Your task to perform on an android device: Clear the shopping cart on ebay. Add razer blackwidow to the cart on ebay, then select checkout. Image 0: 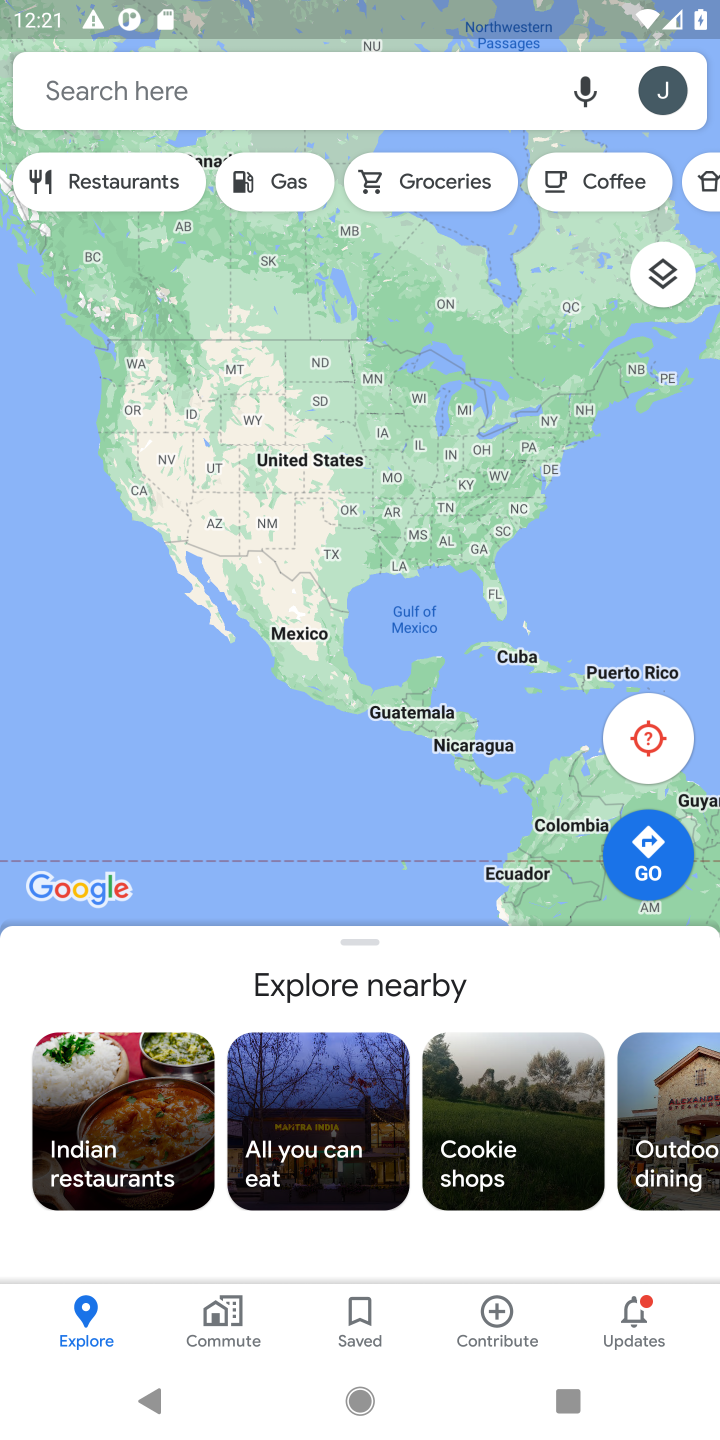
Step 0: press home button
Your task to perform on an android device: Clear the shopping cart on ebay. Add razer blackwidow to the cart on ebay, then select checkout. Image 1: 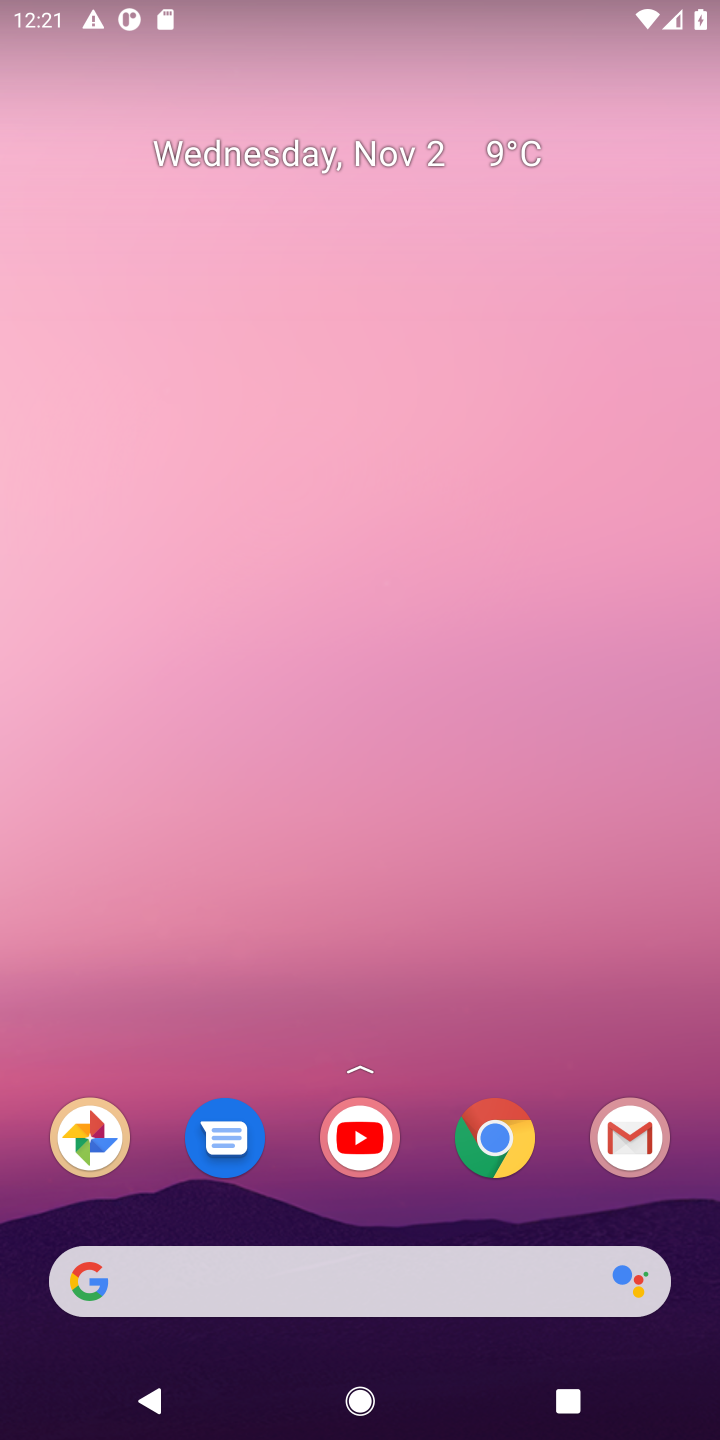
Step 1: click (377, 1281)
Your task to perform on an android device: Clear the shopping cart on ebay. Add razer blackwidow to the cart on ebay, then select checkout. Image 2: 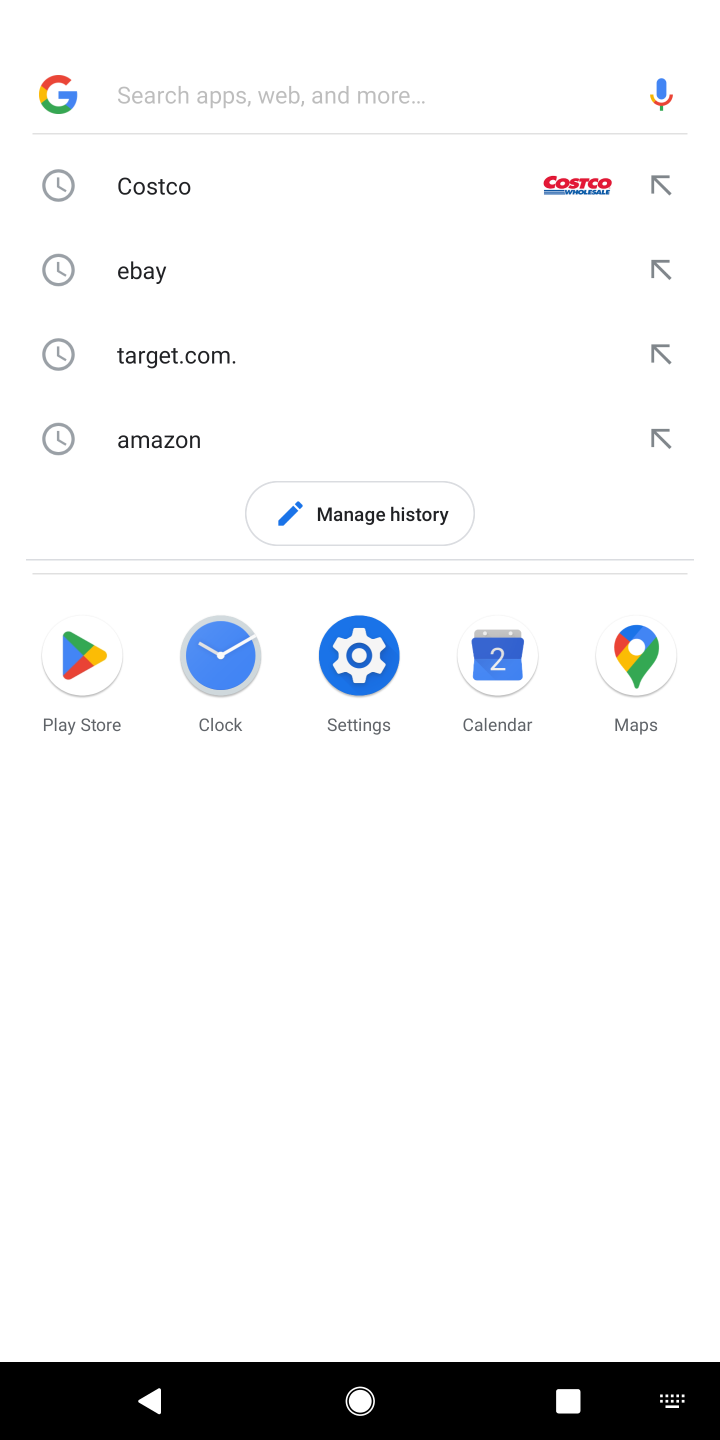
Step 2: click (169, 285)
Your task to perform on an android device: Clear the shopping cart on ebay. Add razer blackwidow to the cart on ebay, then select checkout. Image 3: 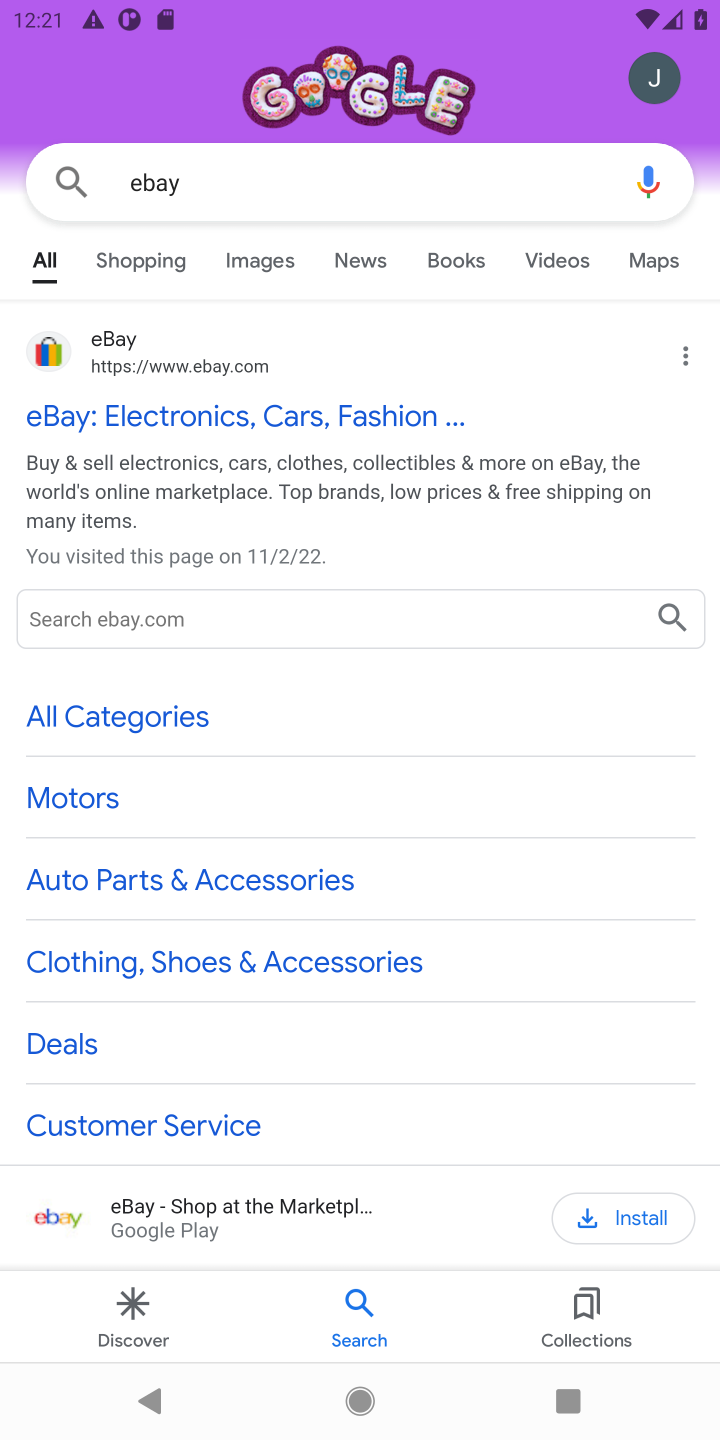
Step 3: click (76, 407)
Your task to perform on an android device: Clear the shopping cart on ebay. Add razer blackwidow to the cart on ebay, then select checkout. Image 4: 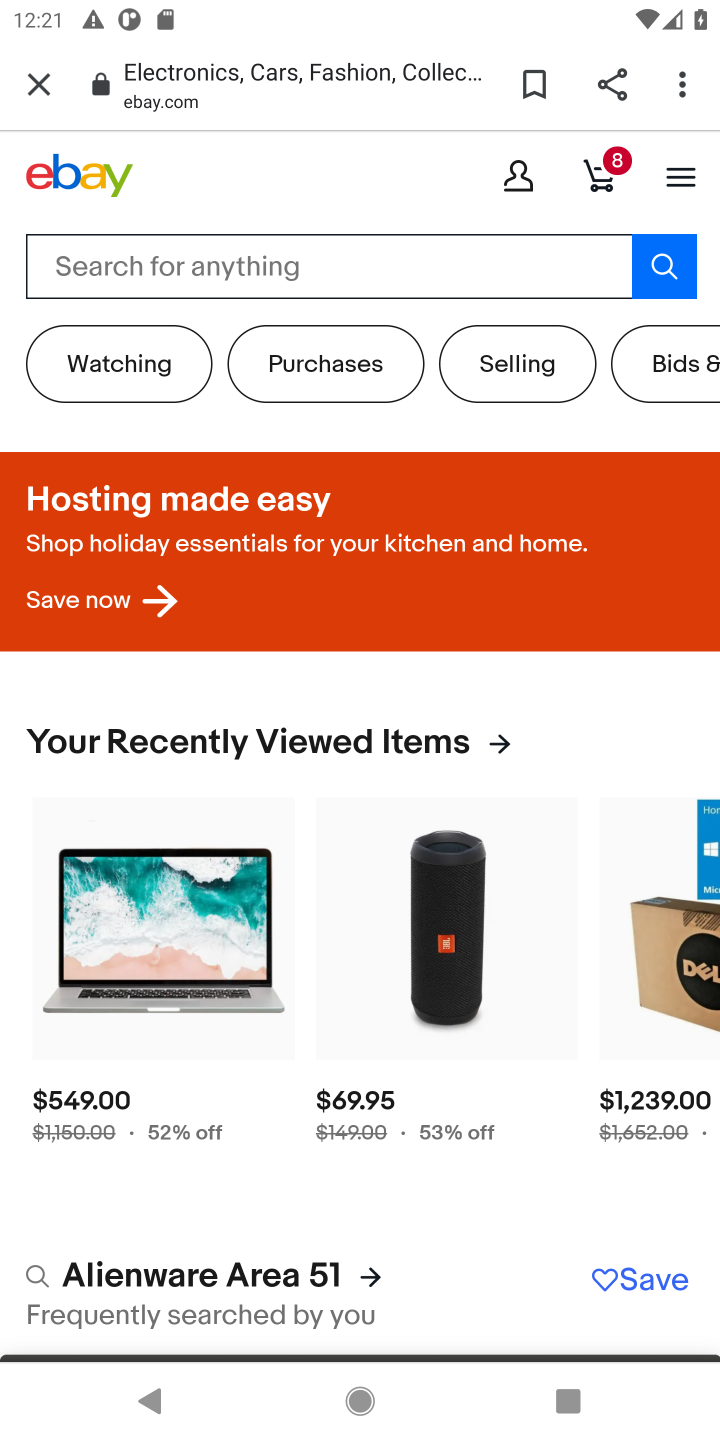
Step 4: click (191, 276)
Your task to perform on an android device: Clear the shopping cart on ebay. Add razer blackwidow to the cart on ebay, then select checkout. Image 5: 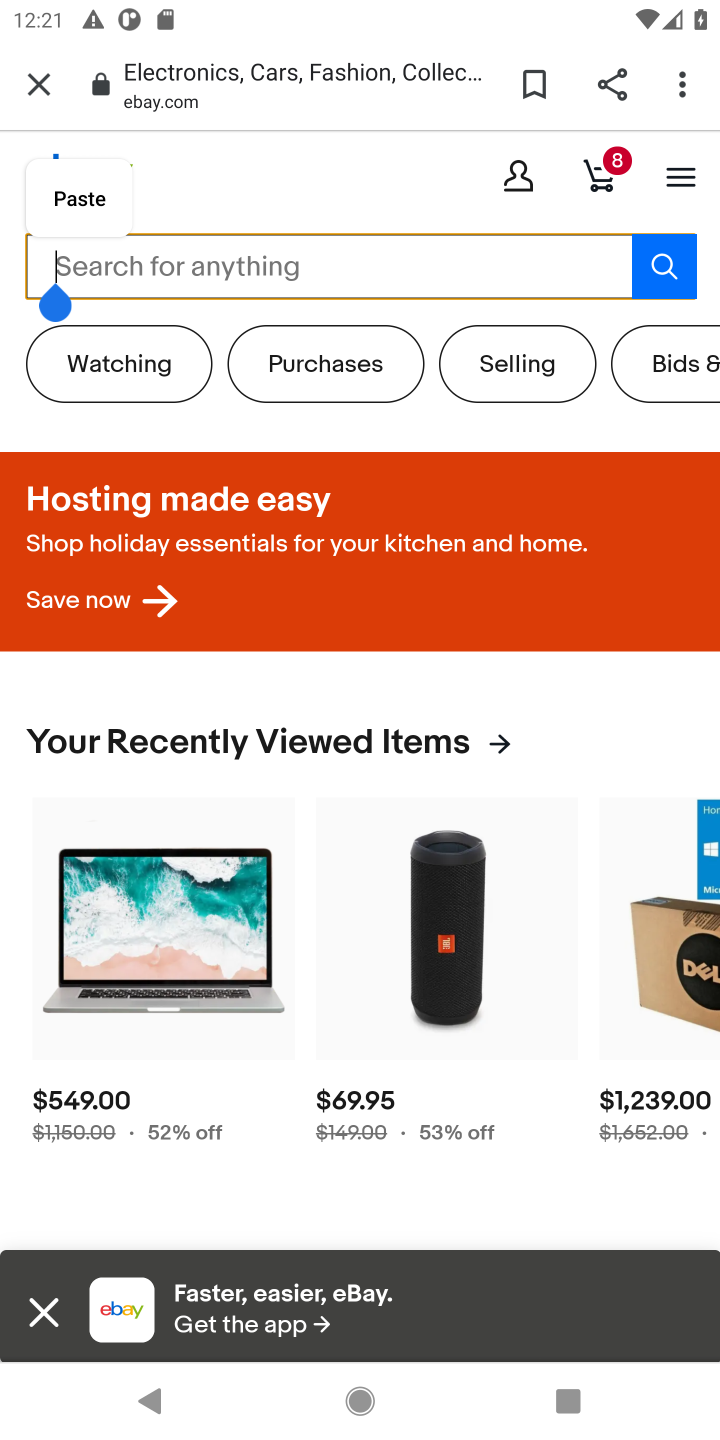
Step 5: type "razer blackwidow"
Your task to perform on an android device: Clear the shopping cart on ebay. Add razer blackwidow to the cart on ebay, then select checkout. Image 6: 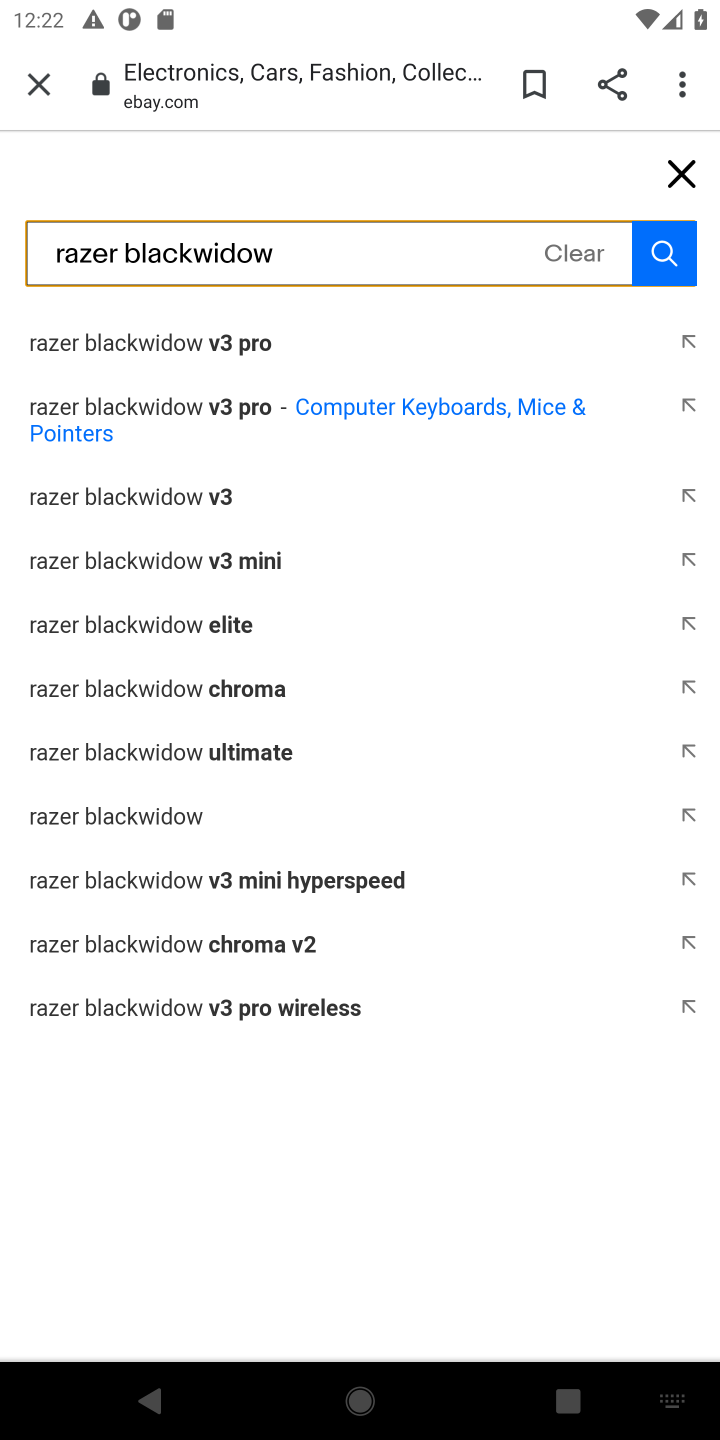
Step 6: click (651, 262)
Your task to perform on an android device: Clear the shopping cart on ebay. Add razer blackwidow to the cart on ebay, then select checkout. Image 7: 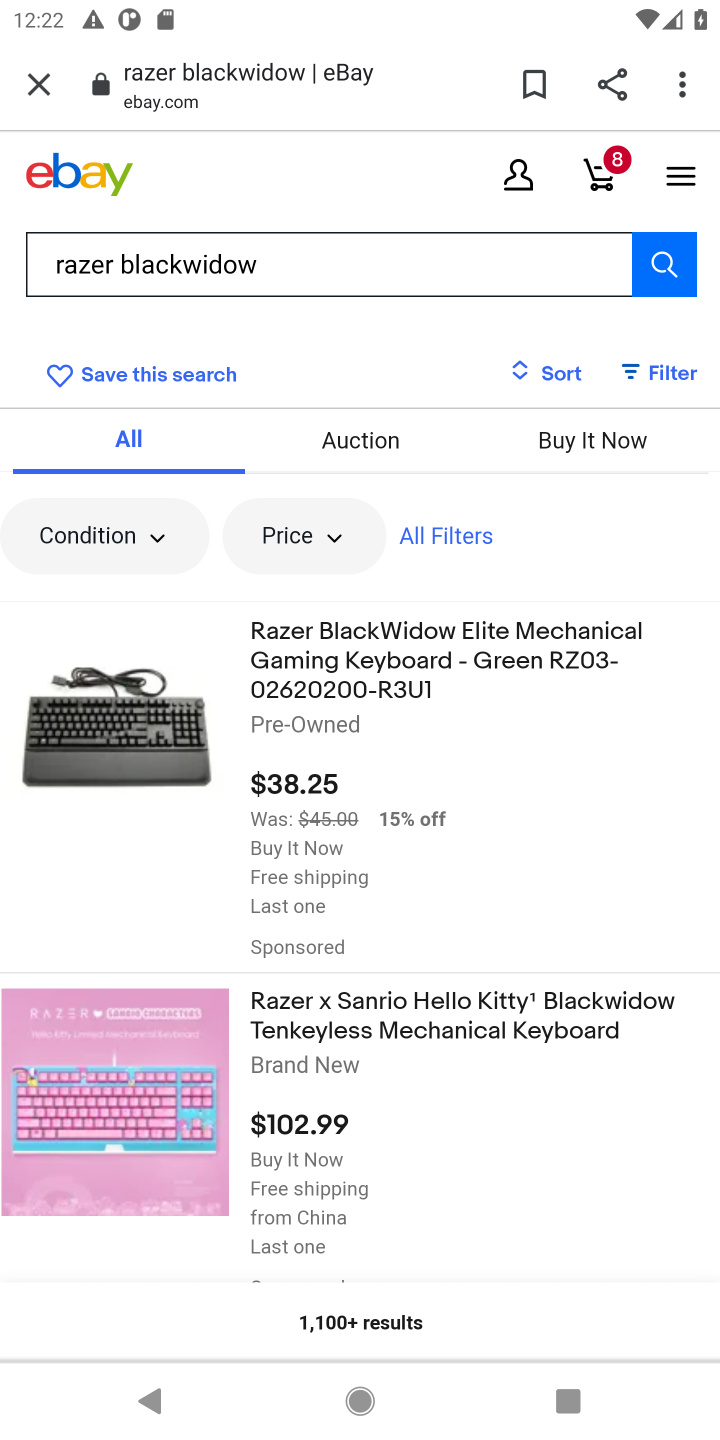
Step 7: click (383, 673)
Your task to perform on an android device: Clear the shopping cart on ebay. Add razer blackwidow to the cart on ebay, then select checkout. Image 8: 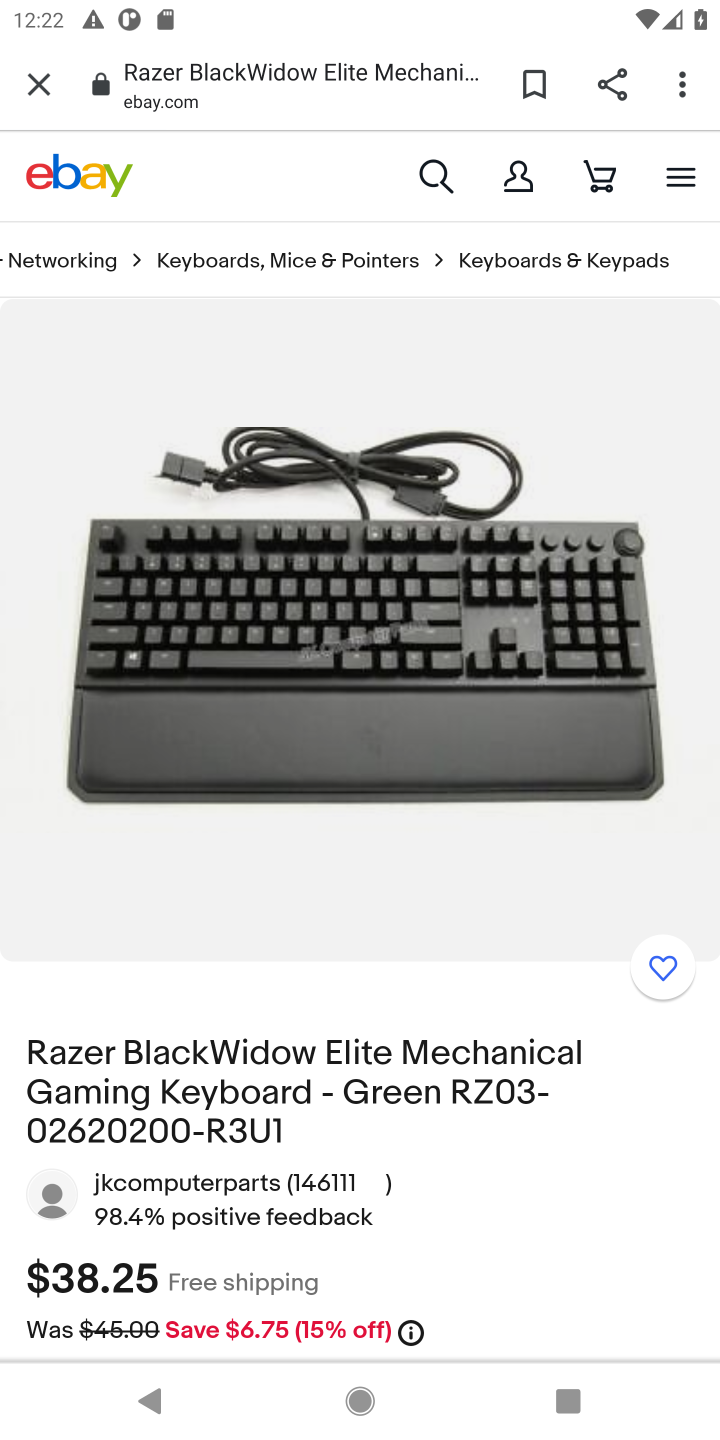
Step 8: drag from (527, 1222) to (501, 536)
Your task to perform on an android device: Clear the shopping cart on ebay. Add razer blackwidow to the cart on ebay, then select checkout. Image 9: 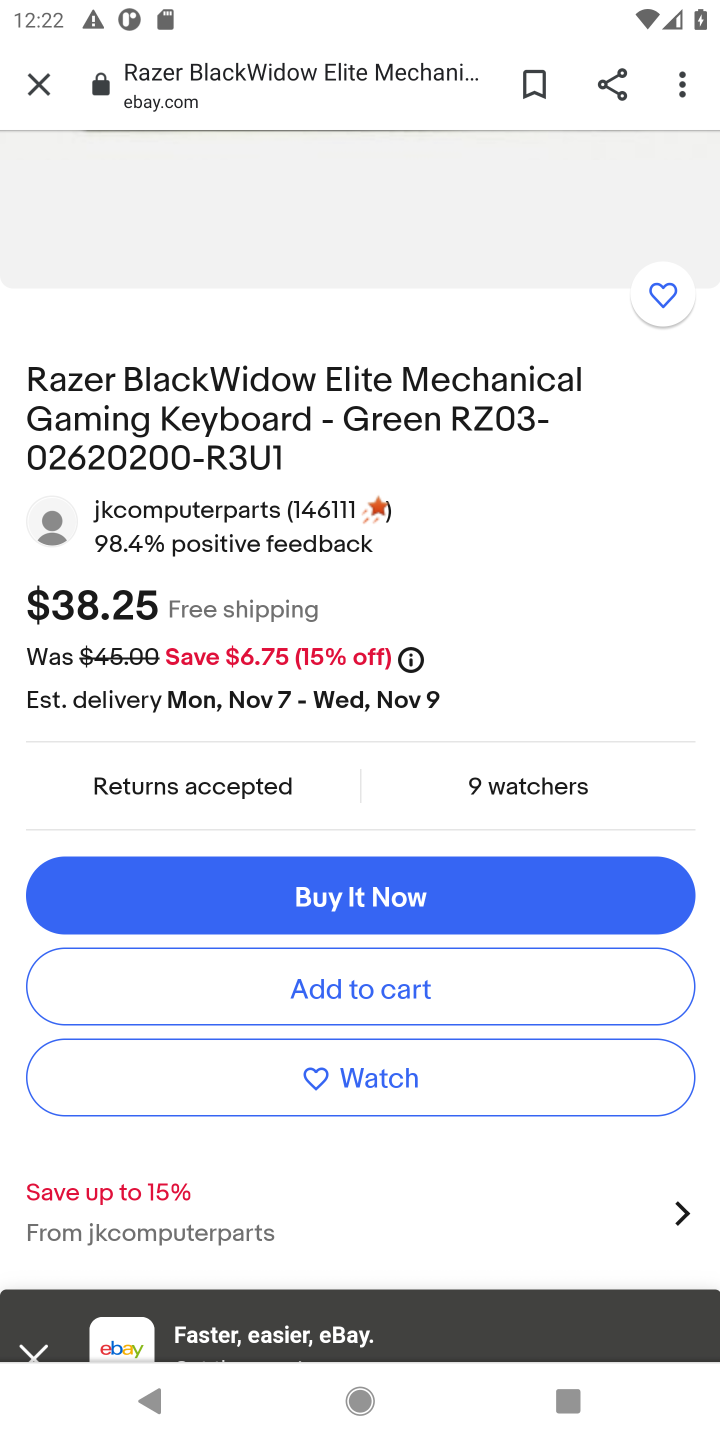
Step 9: drag from (354, 895) to (381, 816)
Your task to perform on an android device: Clear the shopping cart on ebay. Add razer blackwidow to the cart on ebay, then select checkout. Image 10: 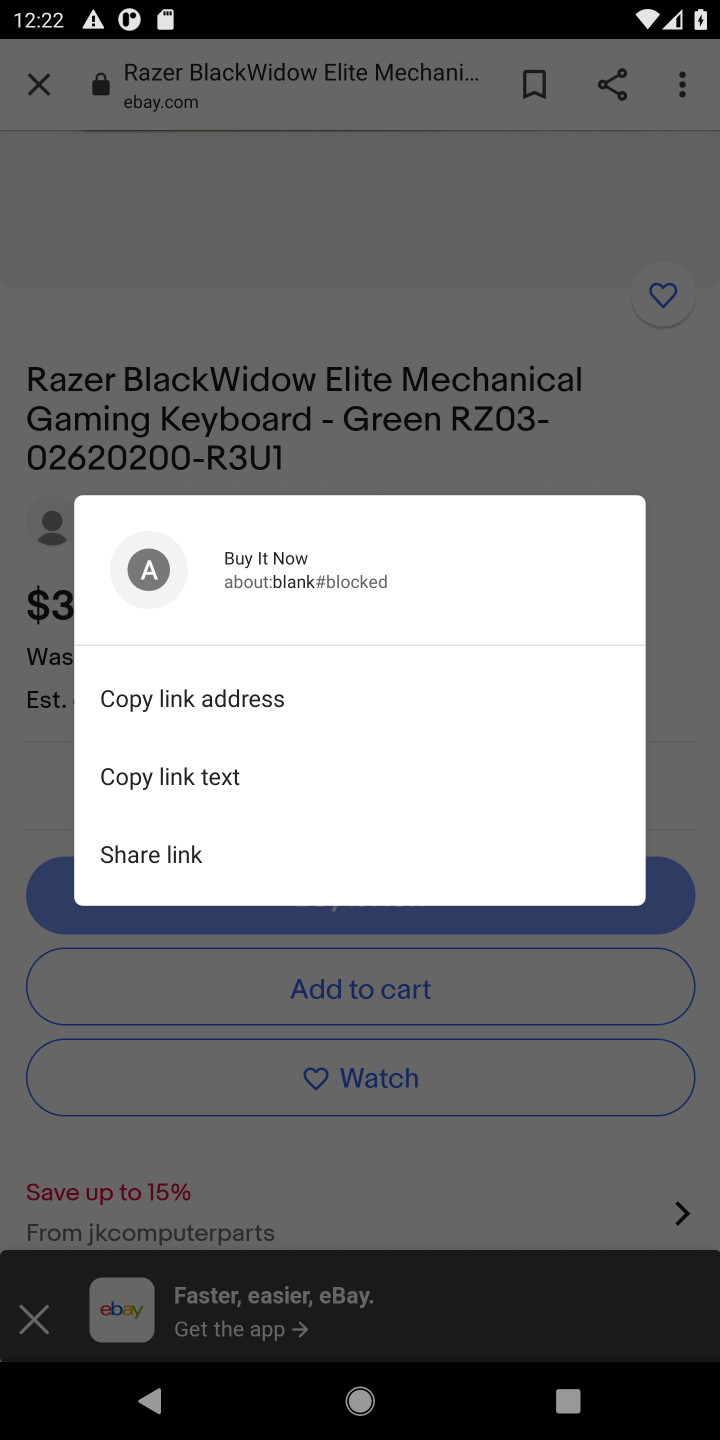
Step 10: click (661, 581)
Your task to perform on an android device: Clear the shopping cart on ebay. Add razer blackwidow to the cart on ebay, then select checkout. Image 11: 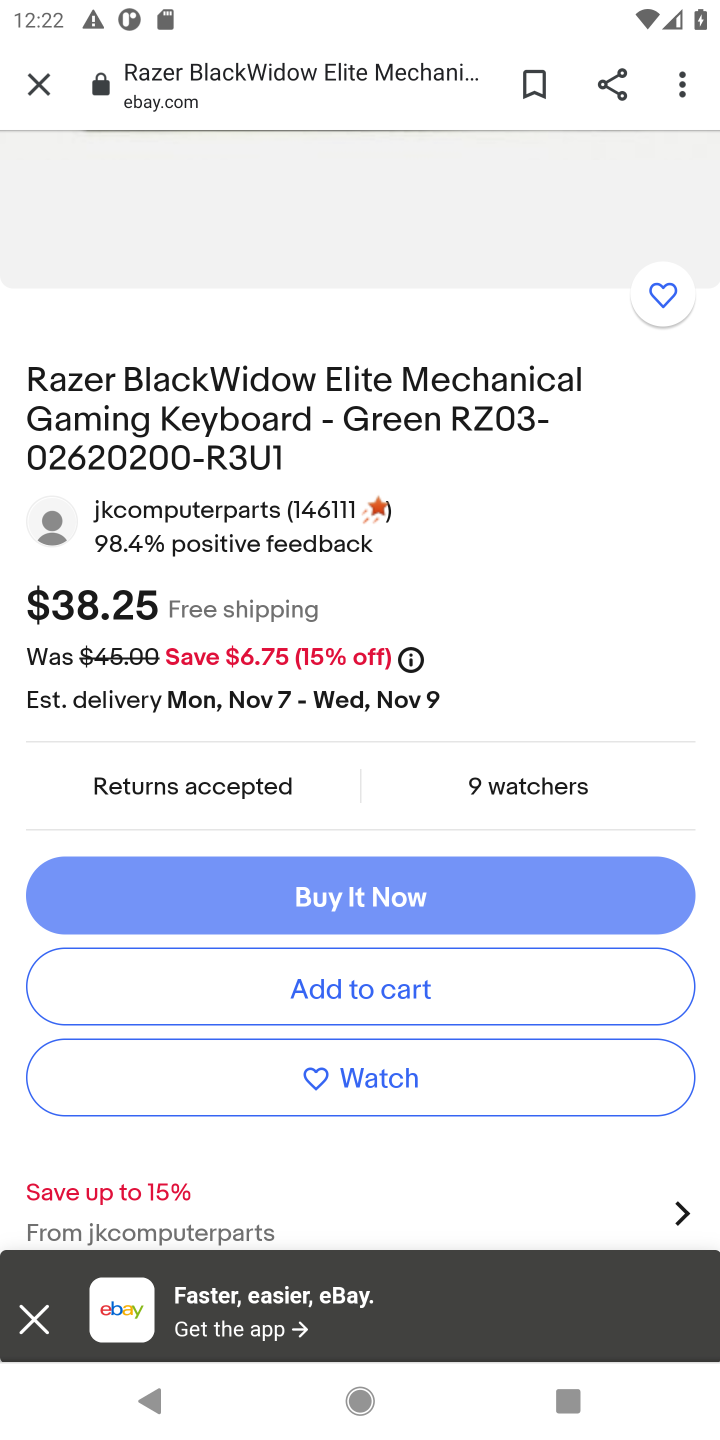
Step 11: click (355, 982)
Your task to perform on an android device: Clear the shopping cart on ebay. Add razer blackwidow to the cart on ebay, then select checkout. Image 12: 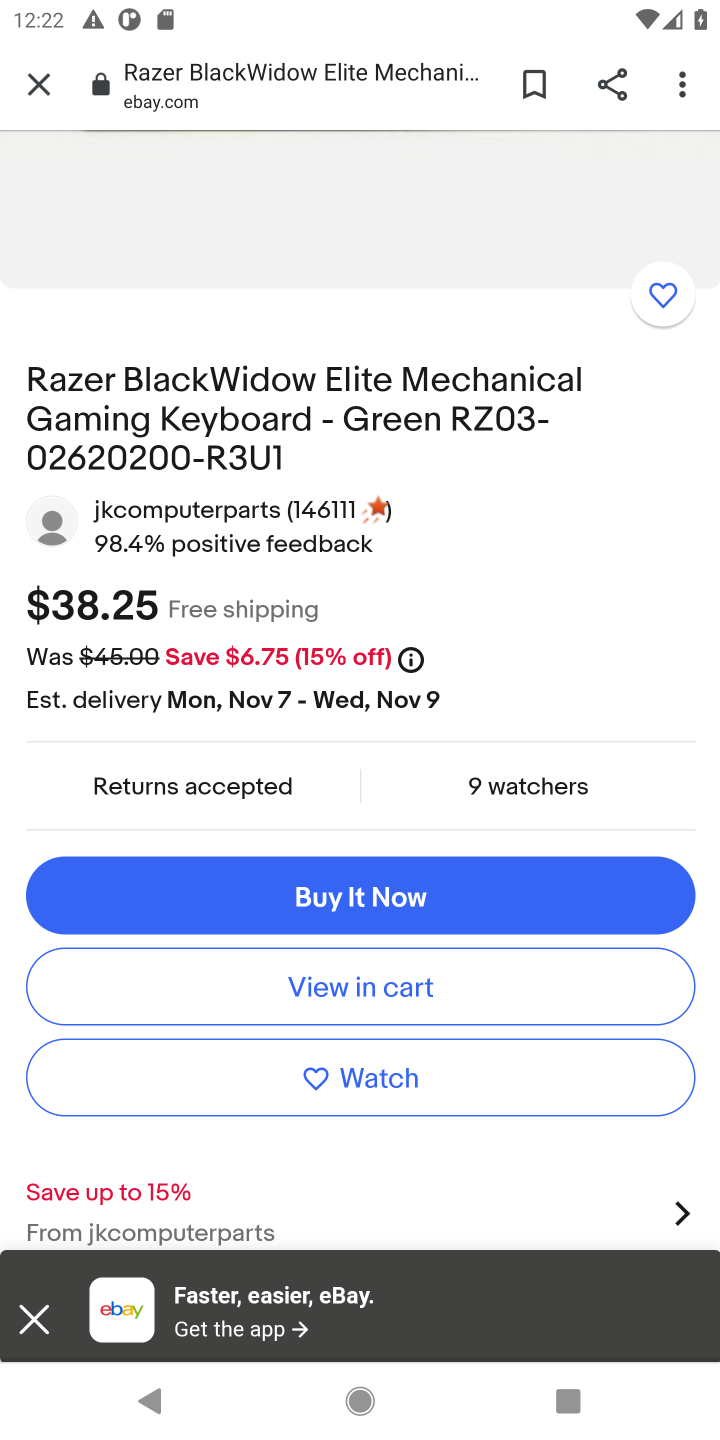
Step 12: drag from (578, 470) to (524, 1126)
Your task to perform on an android device: Clear the shopping cart on ebay. Add razer blackwidow to the cart on ebay, then select checkout. Image 13: 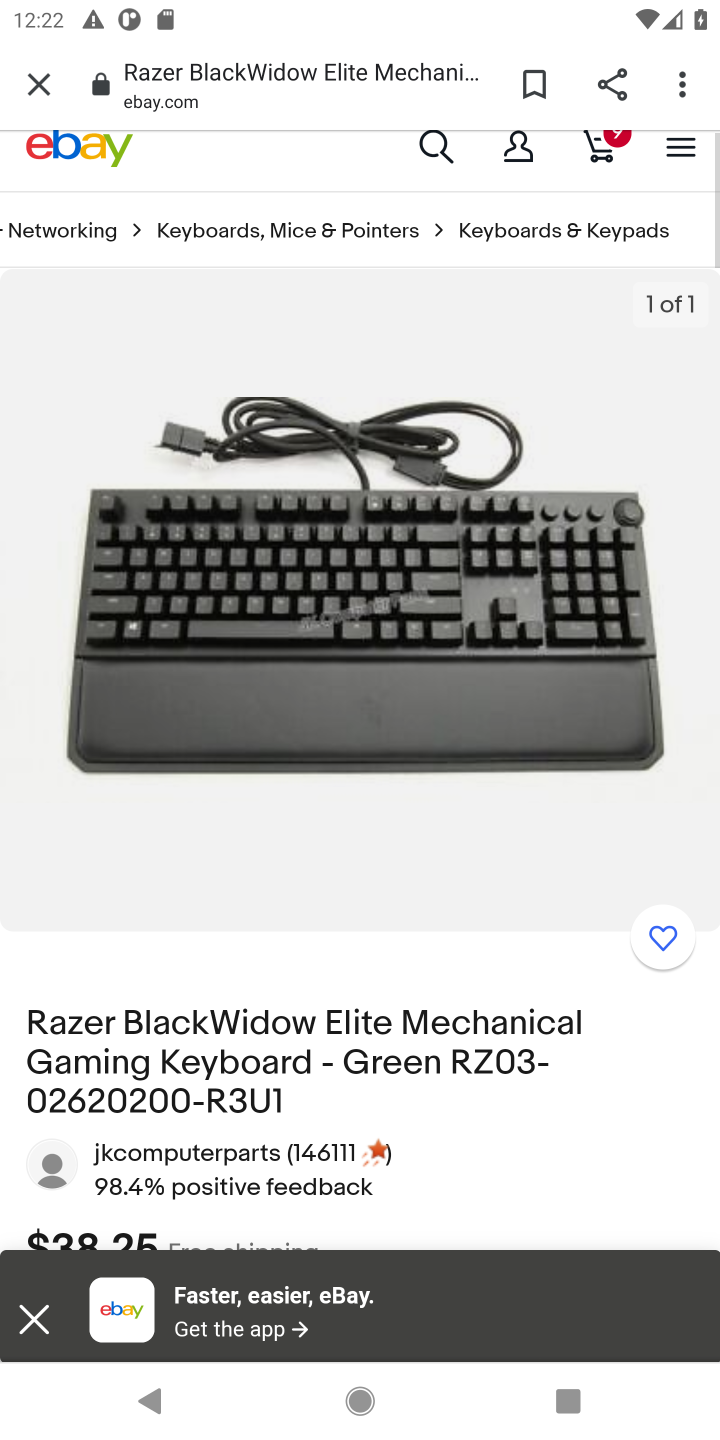
Step 13: drag from (600, 470) to (630, 979)
Your task to perform on an android device: Clear the shopping cart on ebay. Add razer blackwidow to the cart on ebay, then select checkout. Image 14: 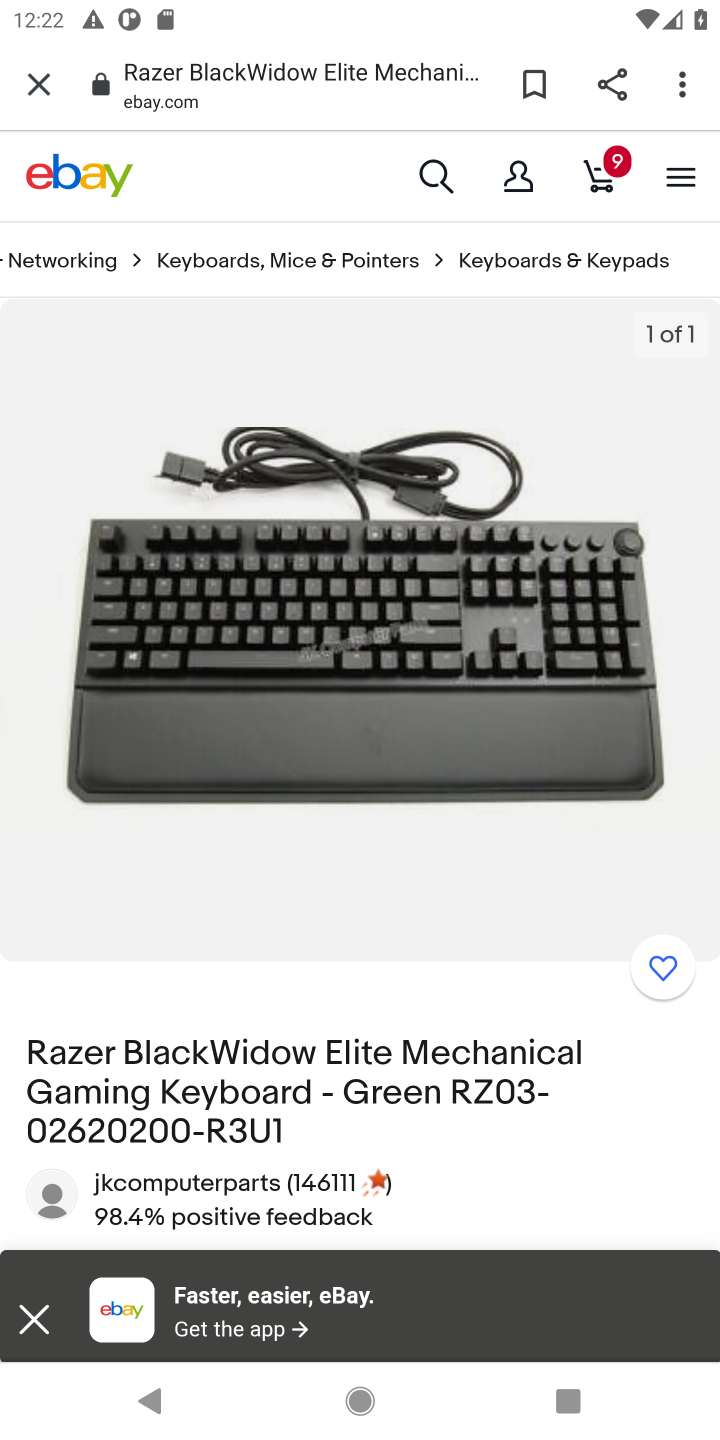
Step 14: click (583, 188)
Your task to perform on an android device: Clear the shopping cart on ebay. Add razer blackwidow to the cart on ebay, then select checkout. Image 15: 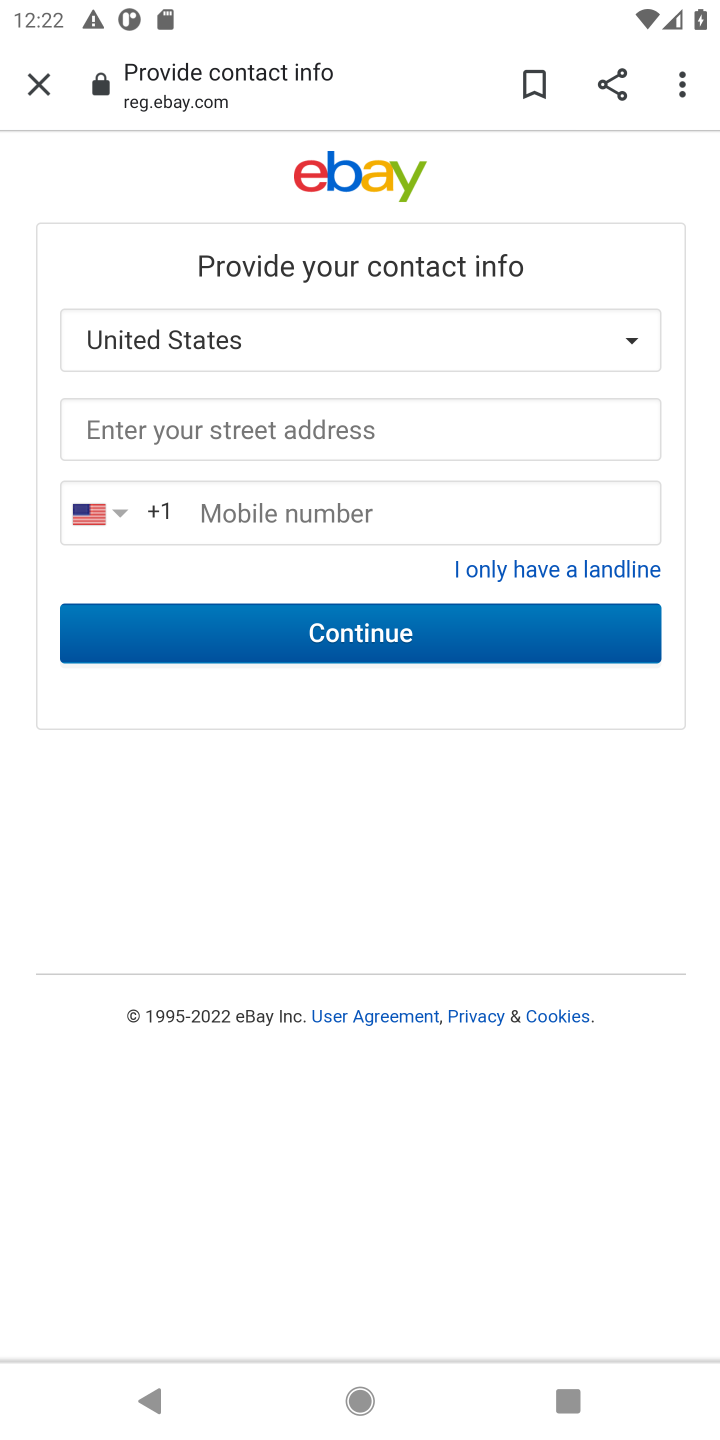
Step 15: task complete